Your task to perform on an android device: Look up the best rated headphones on Walmart. Image 0: 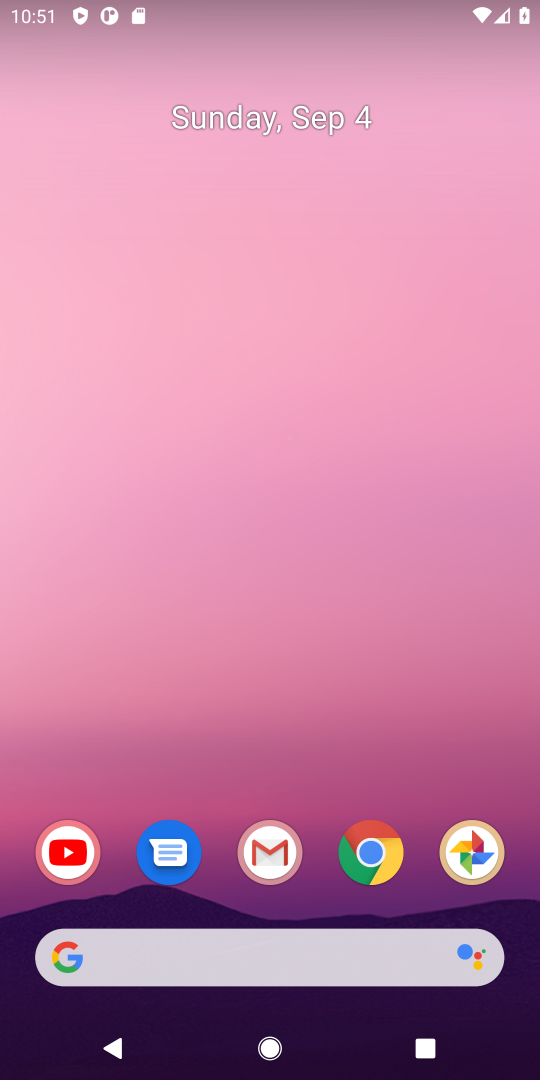
Step 0: drag from (430, 678) to (528, 746)
Your task to perform on an android device: Look up the best rated headphones on Walmart. Image 1: 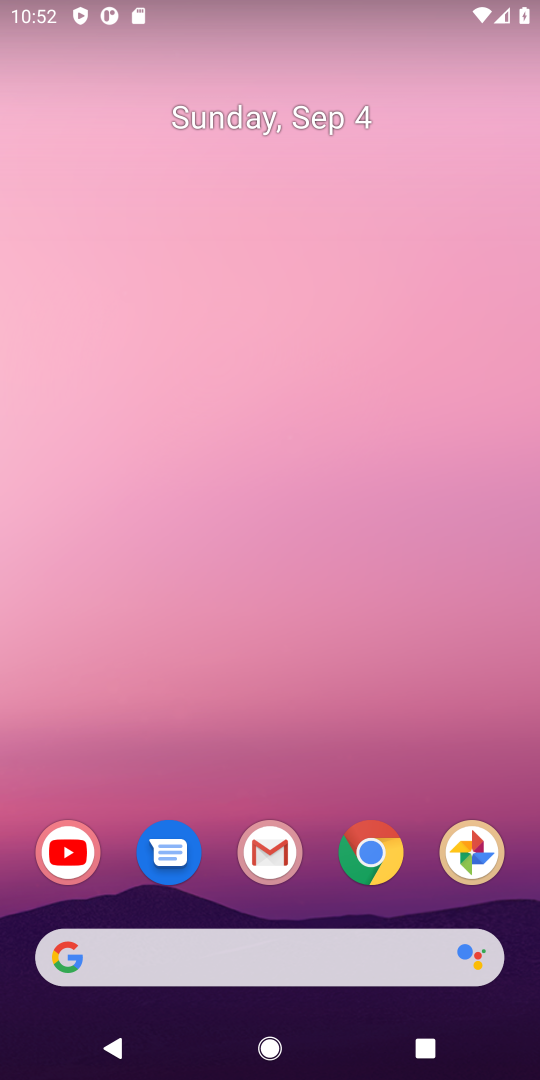
Step 1: drag from (424, 873) to (332, 12)
Your task to perform on an android device: Look up the best rated headphones on Walmart. Image 2: 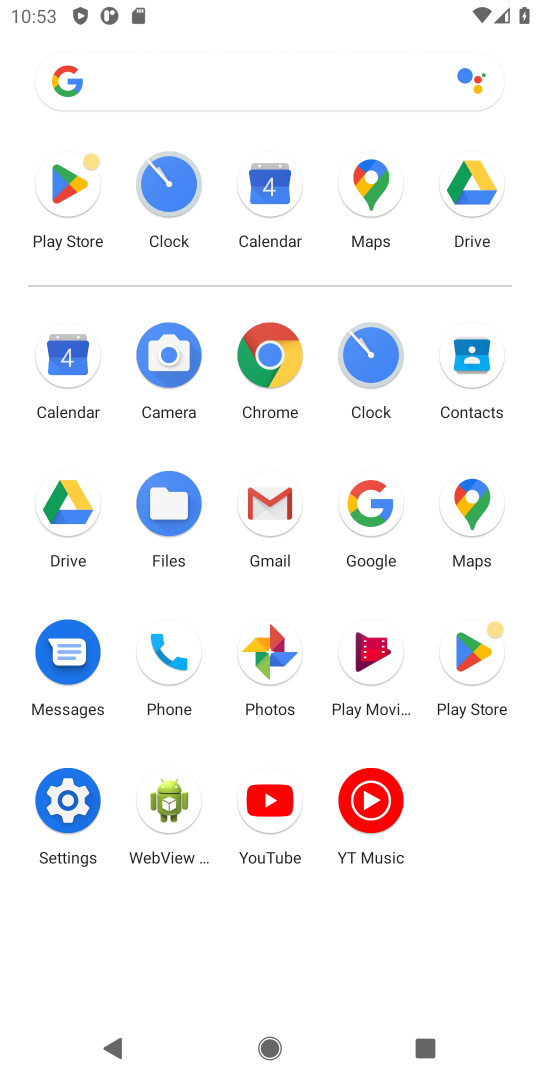
Step 2: click (371, 505)
Your task to perform on an android device: Look up the best rated headphones on Walmart. Image 3: 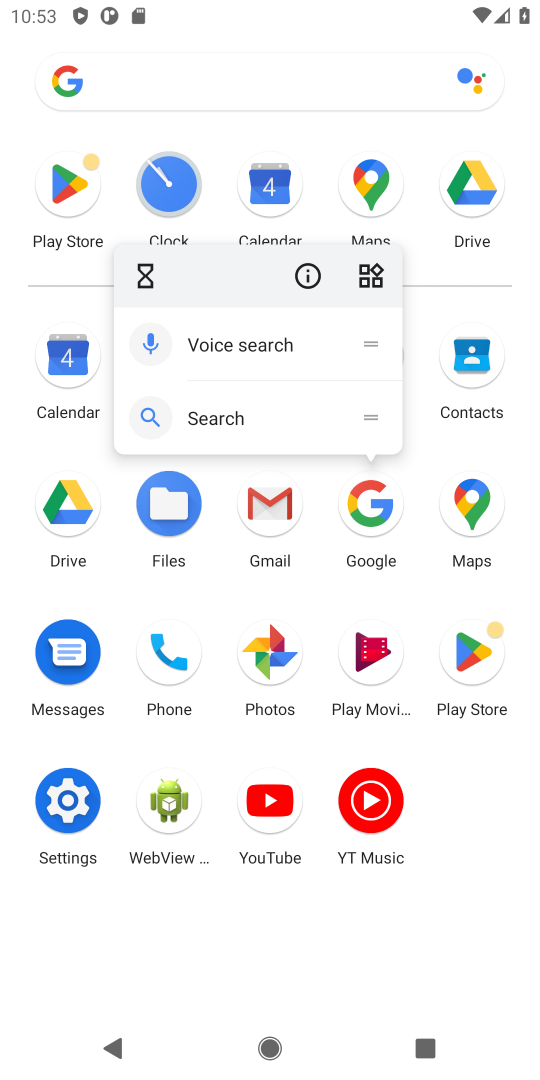
Step 3: click (371, 505)
Your task to perform on an android device: Look up the best rated headphones on Walmart. Image 4: 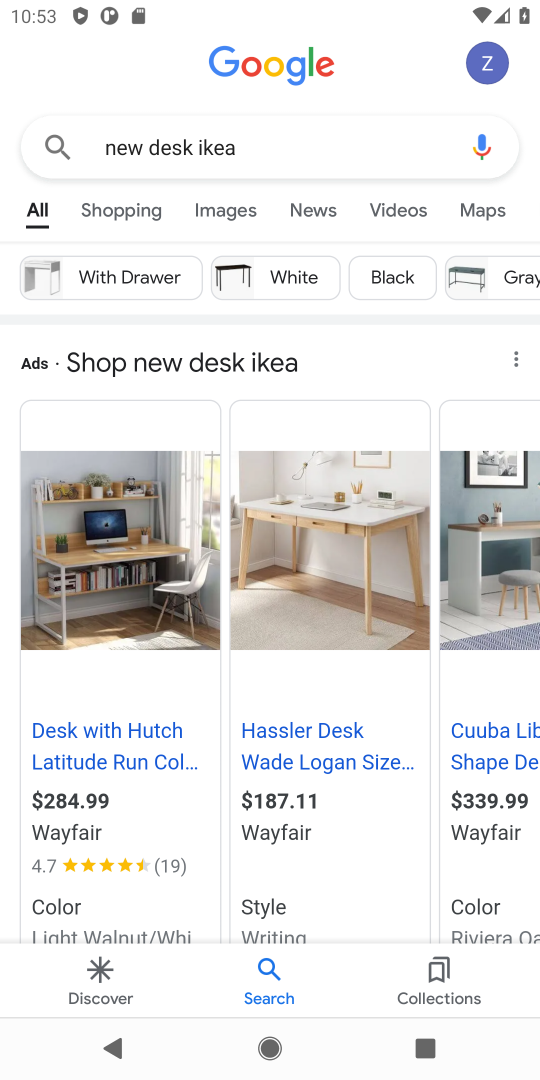
Step 4: press back button
Your task to perform on an android device: Look up the best rated headphones on Walmart. Image 5: 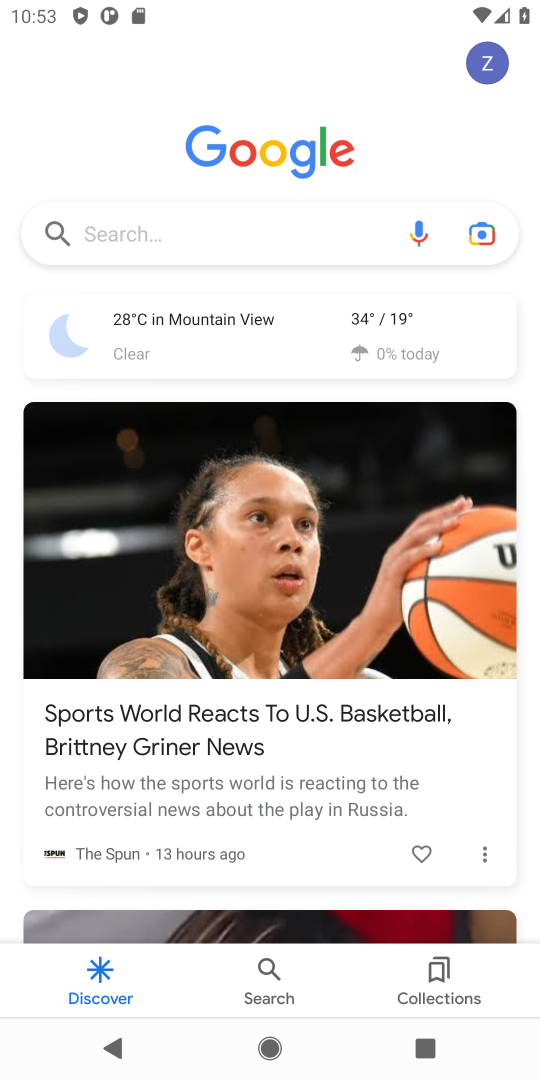
Step 5: click (162, 225)
Your task to perform on an android device: Look up the best rated headphones on Walmart. Image 6: 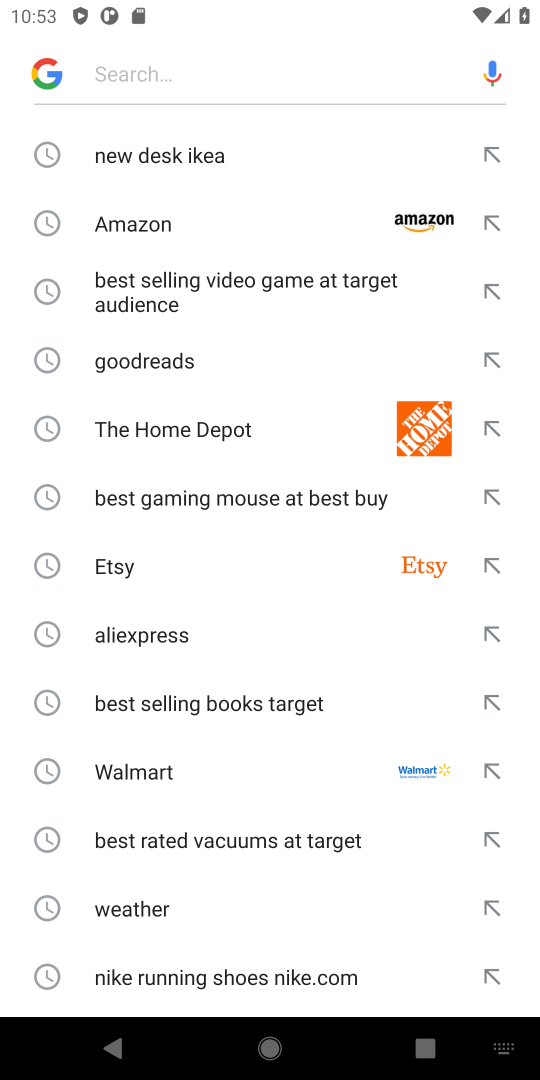
Step 6: type "best rated headphones on Walmart"
Your task to perform on an android device: Look up the best rated headphones on Walmart. Image 7: 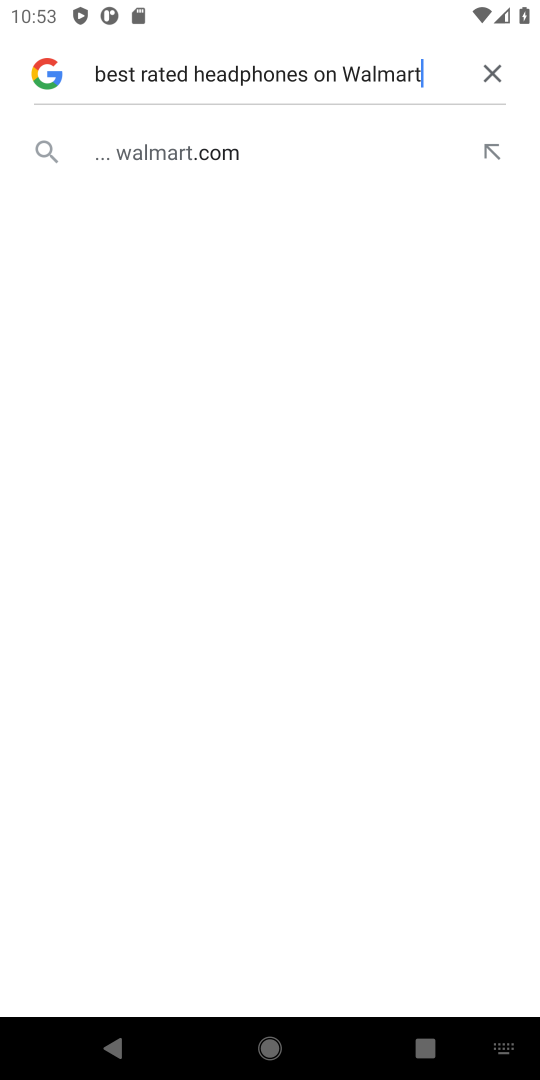
Step 7: click (266, 152)
Your task to perform on an android device: Look up the best rated headphones on Walmart. Image 8: 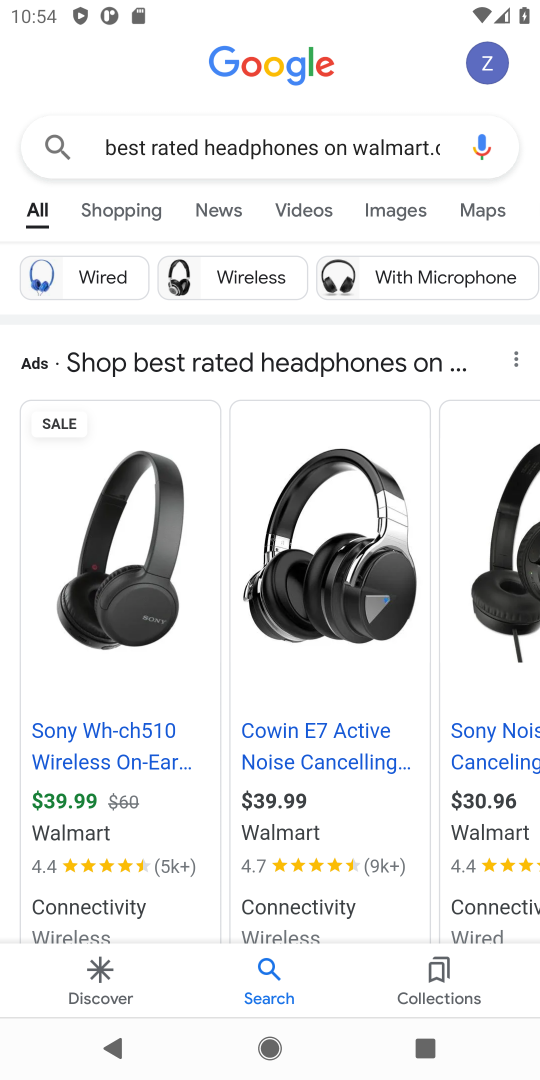
Step 8: task complete